Your task to perform on an android device: Go to ESPN.com Image 0: 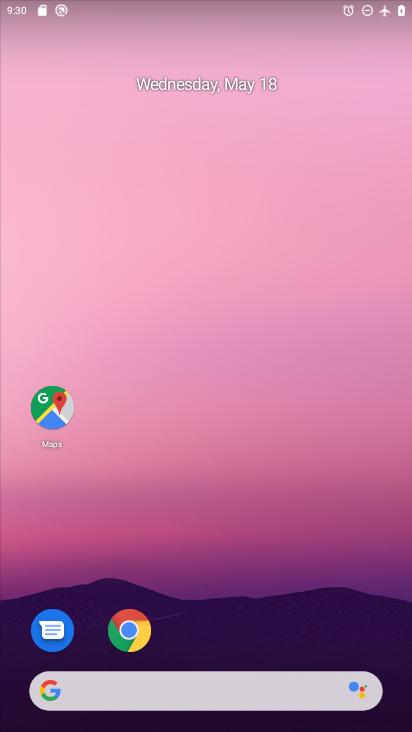
Step 0: drag from (173, 668) to (119, 6)
Your task to perform on an android device: Go to ESPN.com Image 1: 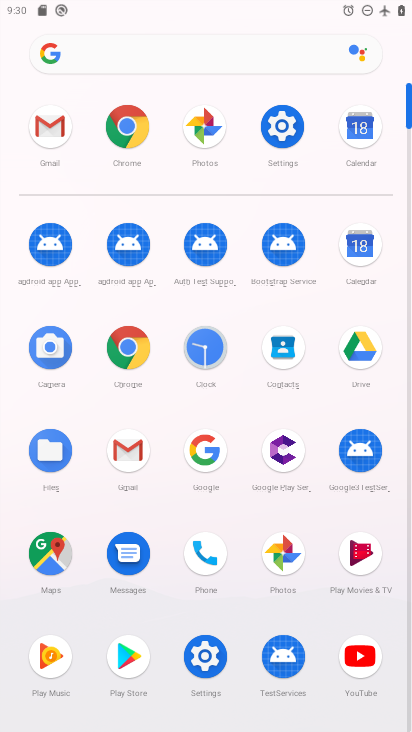
Step 1: click (205, 453)
Your task to perform on an android device: Go to ESPN.com Image 2: 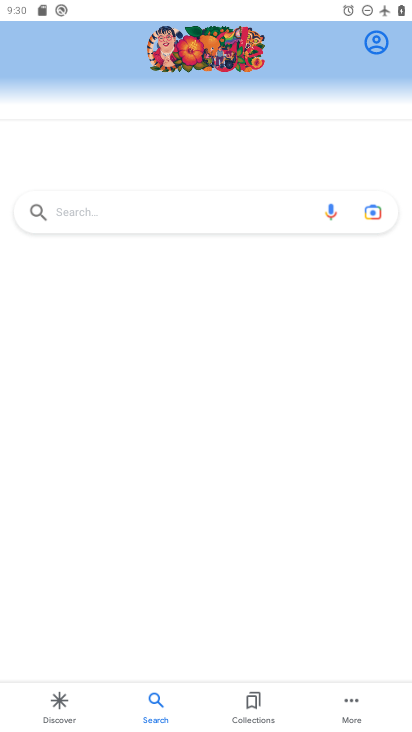
Step 2: click (166, 218)
Your task to perform on an android device: Go to ESPN.com Image 3: 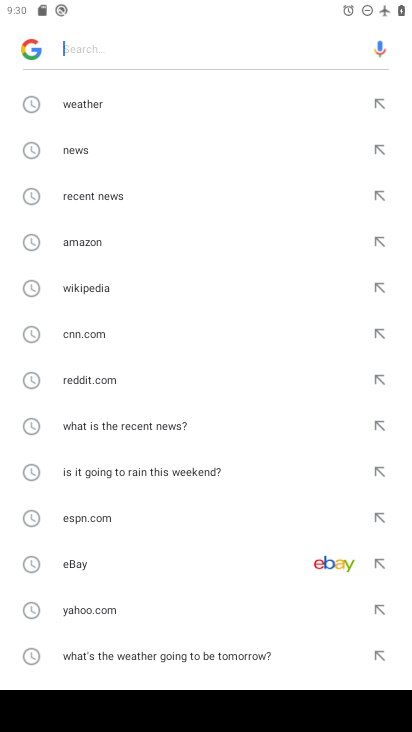
Step 3: click (93, 524)
Your task to perform on an android device: Go to ESPN.com Image 4: 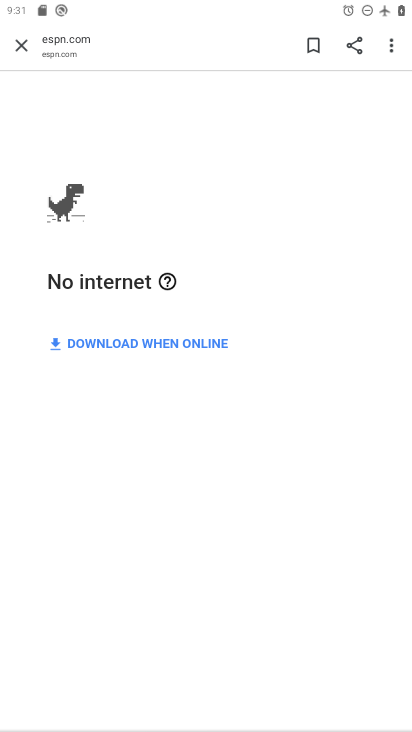
Step 4: task complete